Your task to perform on an android device: turn off priority inbox in the gmail app Image 0: 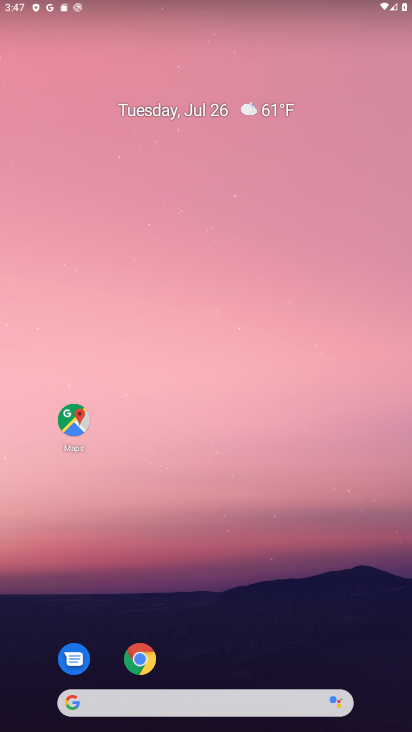
Step 0: drag from (288, 396) to (267, 5)
Your task to perform on an android device: turn off priority inbox in the gmail app Image 1: 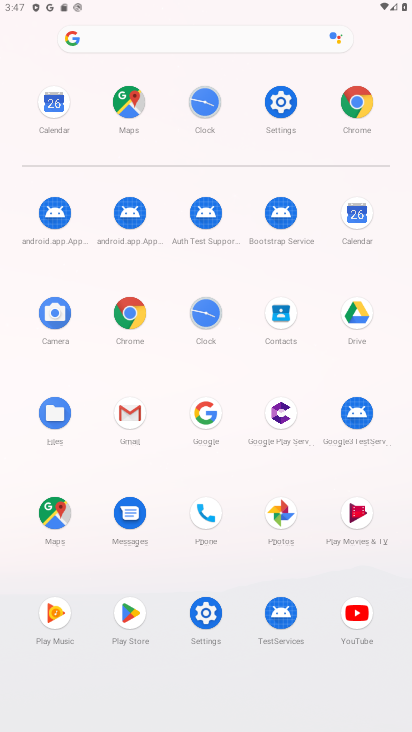
Step 1: click (124, 407)
Your task to perform on an android device: turn off priority inbox in the gmail app Image 2: 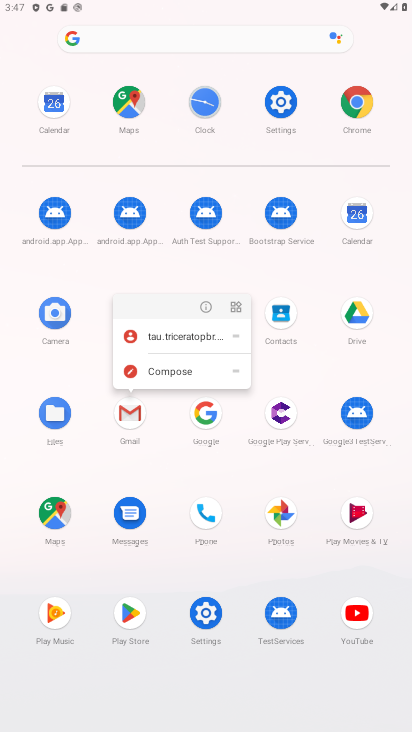
Step 2: click (125, 413)
Your task to perform on an android device: turn off priority inbox in the gmail app Image 3: 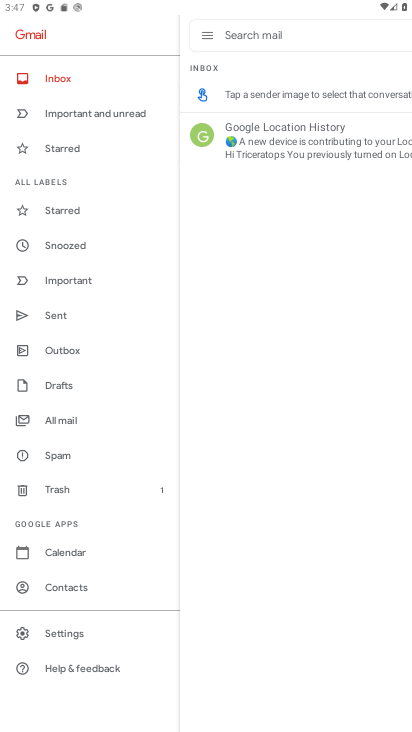
Step 3: click (70, 634)
Your task to perform on an android device: turn off priority inbox in the gmail app Image 4: 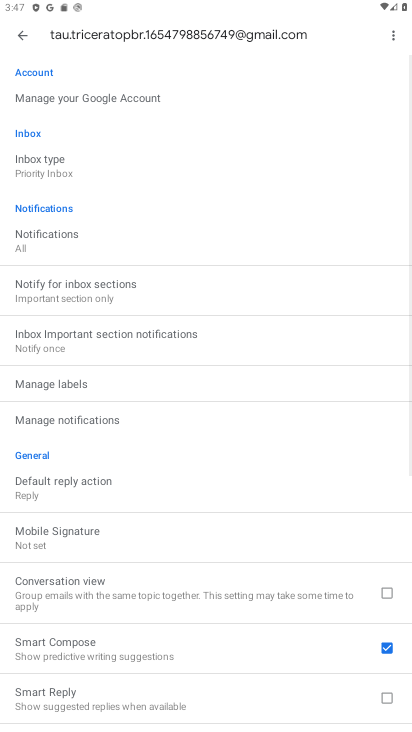
Step 4: click (47, 170)
Your task to perform on an android device: turn off priority inbox in the gmail app Image 5: 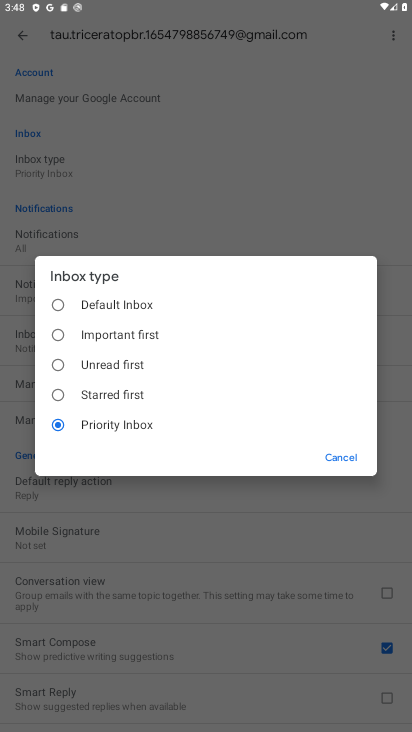
Step 5: task complete